Your task to perform on an android device: Is it going to rain tomorrow? Image 0: 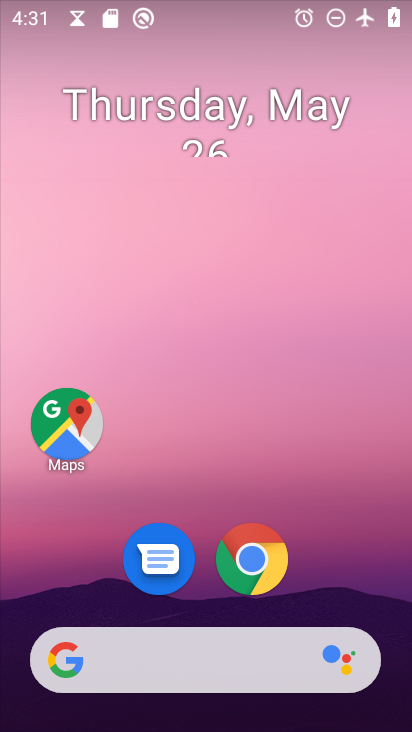
Step 0: drag from (339, 470) to (258, 89)
Your task to perform on an android device: Is it going to rain tomorrow? Image 1: 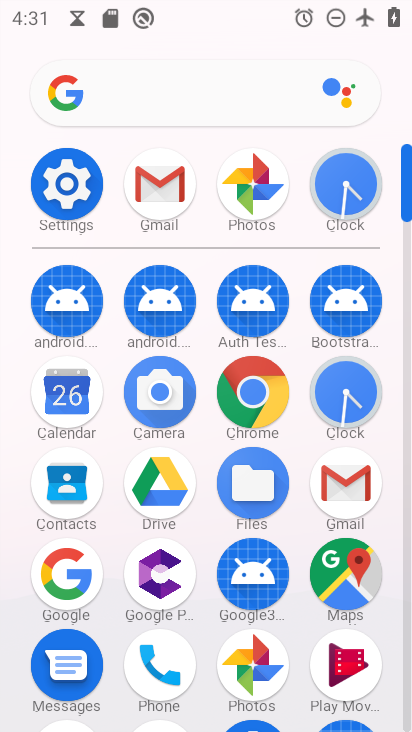
Step 1: click (77, 576)
Your task to perform on an android device: Is it going to rain tomorrow? Image 2: 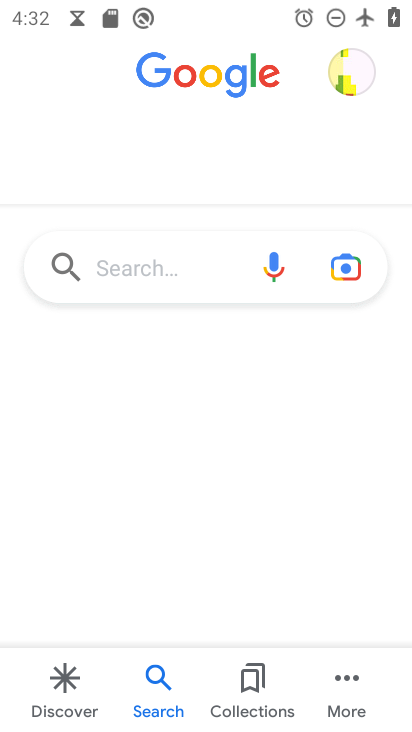
Step 2: click (161, 285)
Your task to perform on an android device: Is it going to rain tomorrow? Image 3: 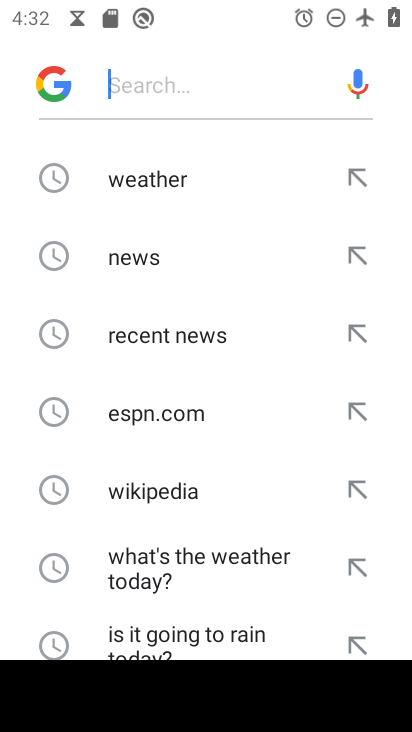
Step 3: drag from (226, 499) to (244, 203)
Your task to perform on an android device: Is it going to rain tomorrow? Image 4: 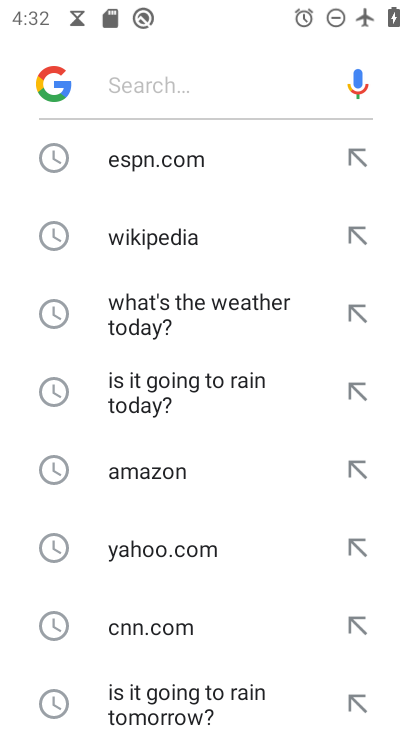
Step 4: click (183, 101)
Your task to perform on an android device: Is it going to rain tomorrow? Image 5: 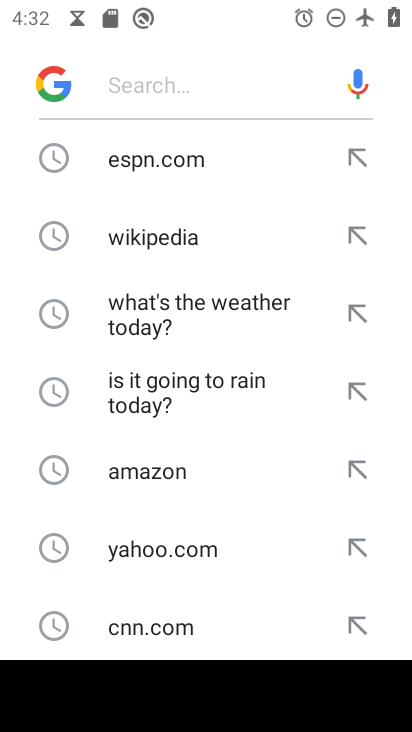
Step 5: drag from (193, 166) to (204, 623)
Your task to perform on an android device: Is it going to rain tomorrow? Image 6: 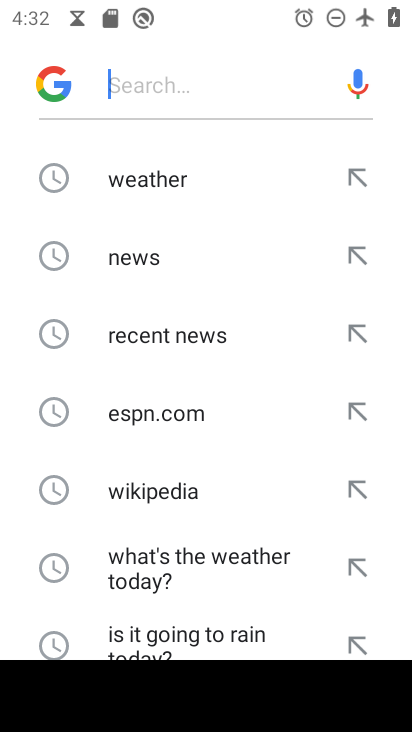
Step 6: click (161, 174)
Your task to perform on an android device: Is it going to rain tomorrow? Image 7: 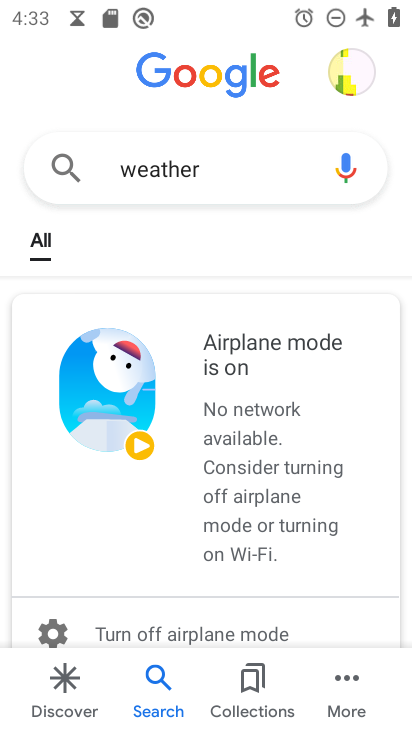
Step 7: task complete